Your task to perform on an android device: Open Android settings Image 0: 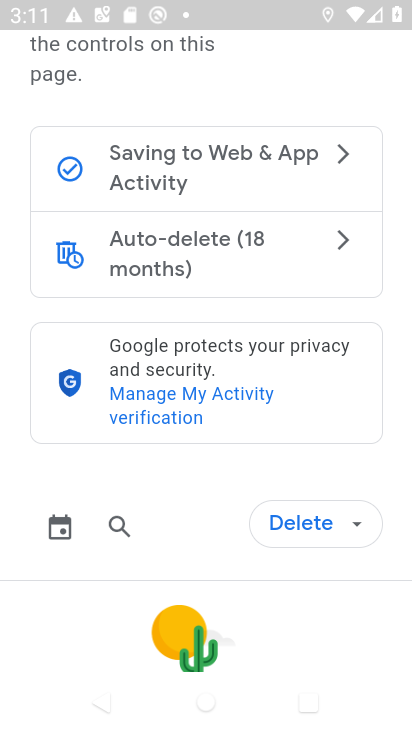
Step 0: press home button
Your task to perform on an android device: Open Android settings Image 1: 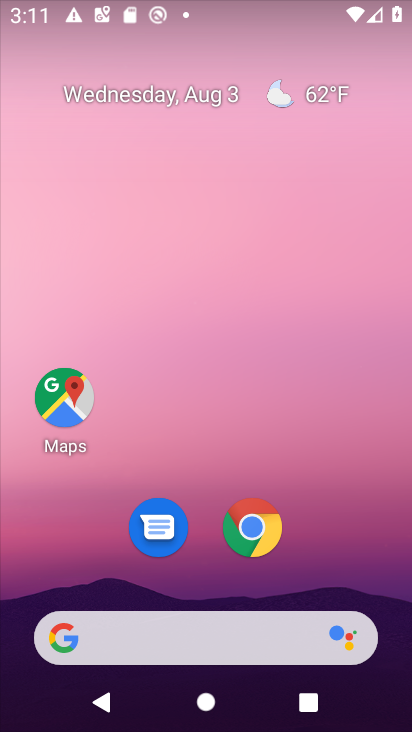
Step 1: drag from (344, 299) to (359, 103)
Your task to perform on an android device: Open Android settings Image 2: 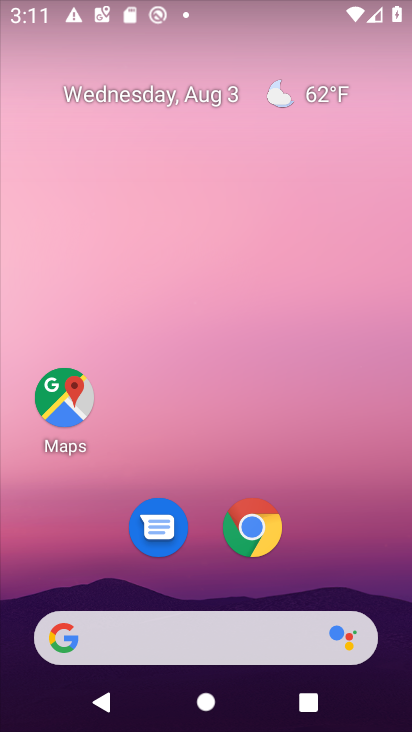
Step 2: drag from (340, 413) to (354, 61)
Your task to perform on an android device: Open Android settings Image 3: 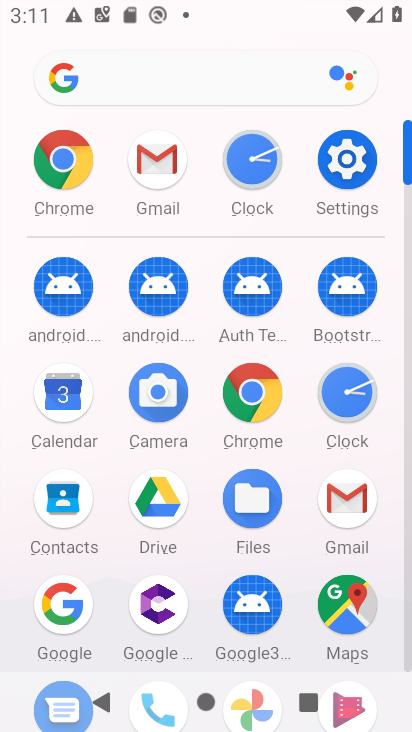
Step 3: click (351, 155)
Your task to perform on an android device: Open Android settings Image 4: 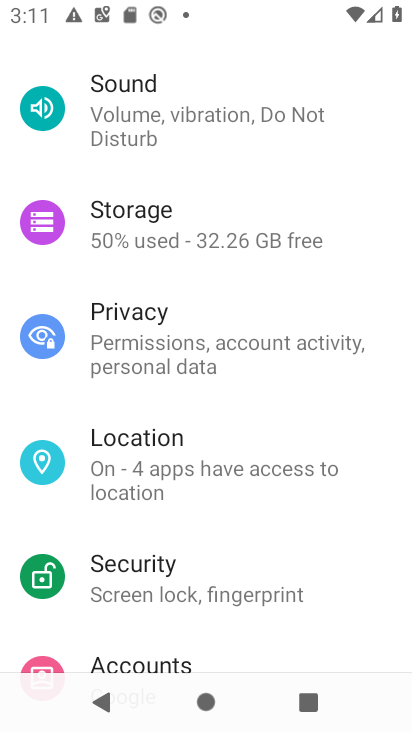
Step 4: task complete